Your task to perform on an android device: change the clock display to analog Image 0: 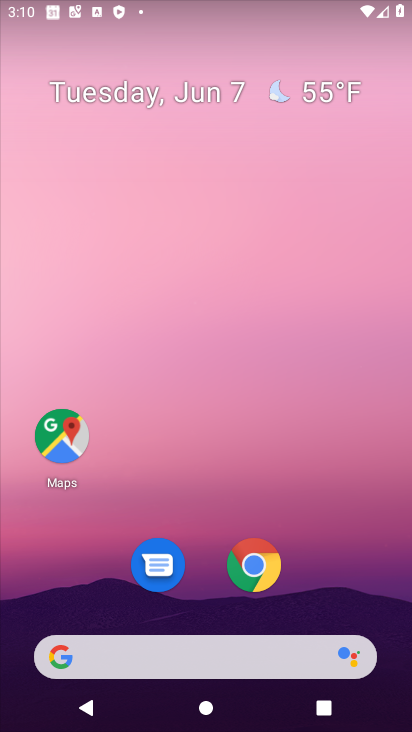
Step 0: drag from (244, 588) to (341, 7)
Your task to perform on an android device: change the clock display to analog Image 1: 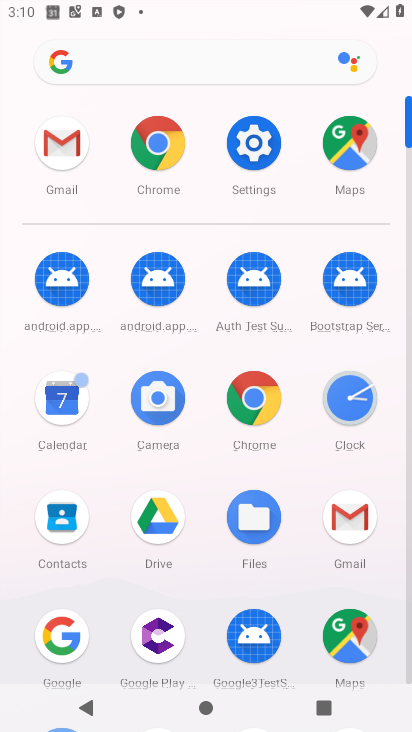
Step 1: click (257, 122)
Your task to perform on an android device: change the clock display to analog Image 2: 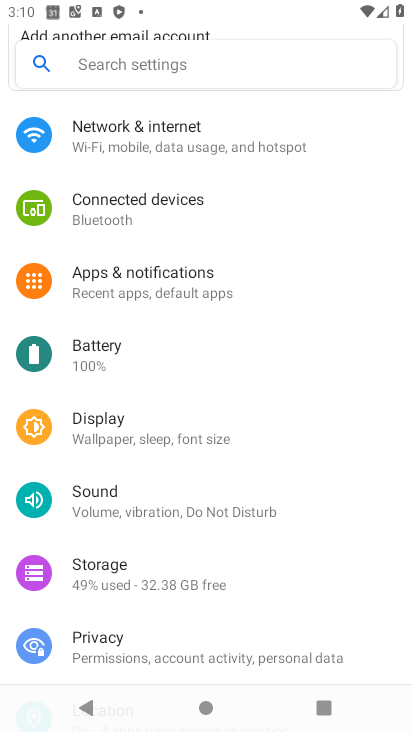
Step 2: press home button
Your task to perform on an android device: change the clock display to analog Image 3: 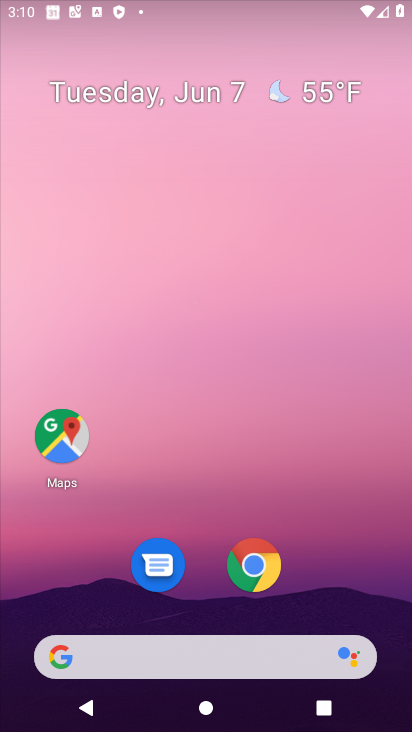
Step 3: drag from (183, 587) to (226, 30)
Your task to perform on an android device: change the clock display to analog Image 4: 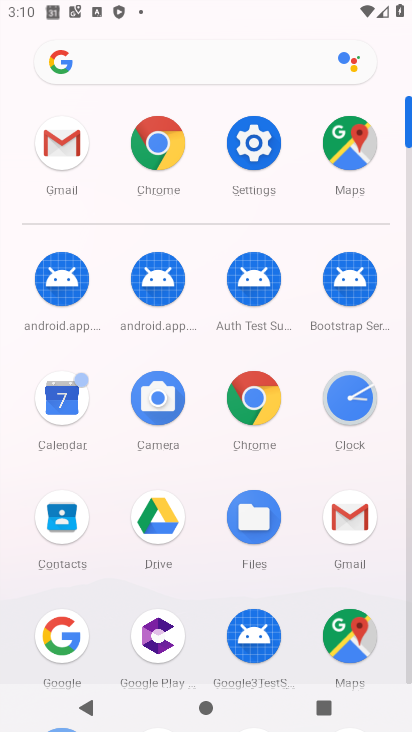
Step 4: click (341, 387)
Your task to perform on an android device: change the clock display to analog Image 5: 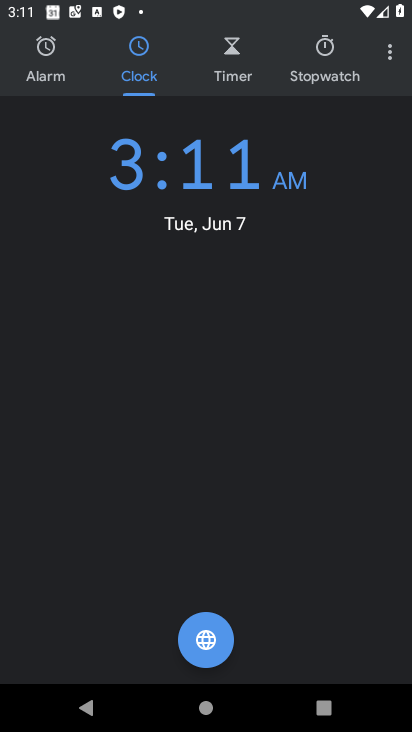
Step 5: click (379, 52)
Your task to perform on an android device: change the clock display to analog Image 6: 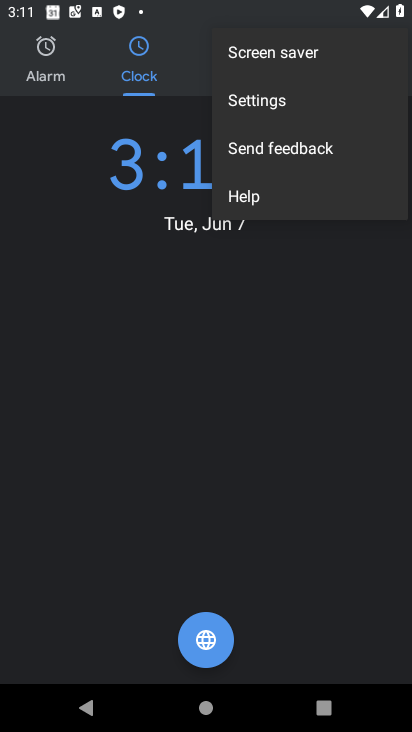
Step 6: click (284, 110)
Your task to perform on an android device: change the clock display to analog Image 7: 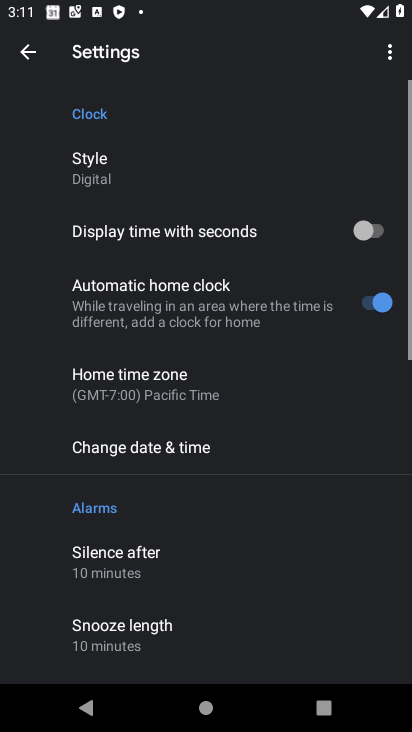
Step 7: click (111, 165)
Your task to perform on an android device: change the clock display to analog Image 8: 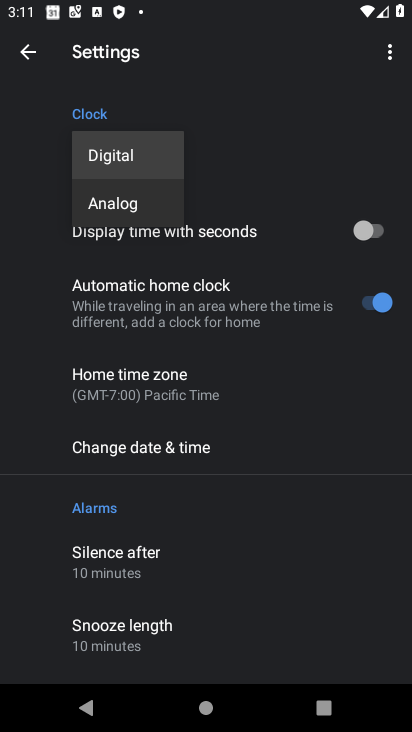
Step 8: click (146, 197)
Your task to perform on an android device: change the clock display to analog Image 9: 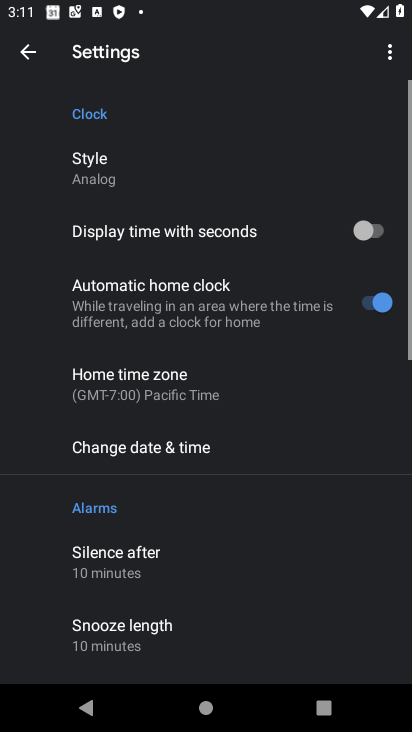
Step 9: task complete